Your task to perform on an android device: manage bookmarks in the chrome app Image 0: 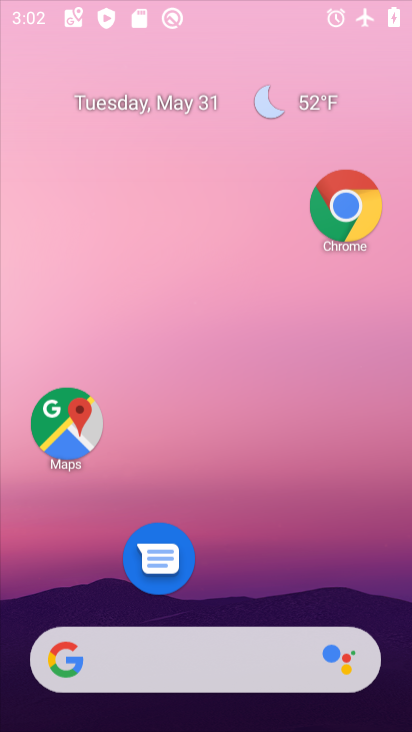
Step 0: drag from (281, 525) to (150, 100)
Your task to perform on an android device: manage bookmarks in the chrome app Image 1: 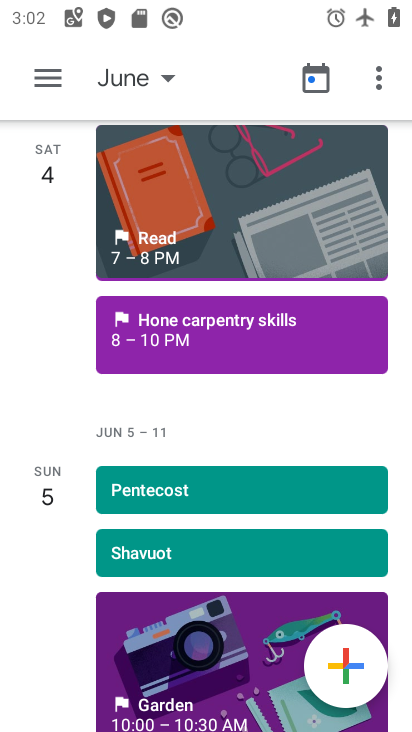
Step 1: press home button
Your task to perform on an android device: manage bookmarks in the chrome app Image 2: 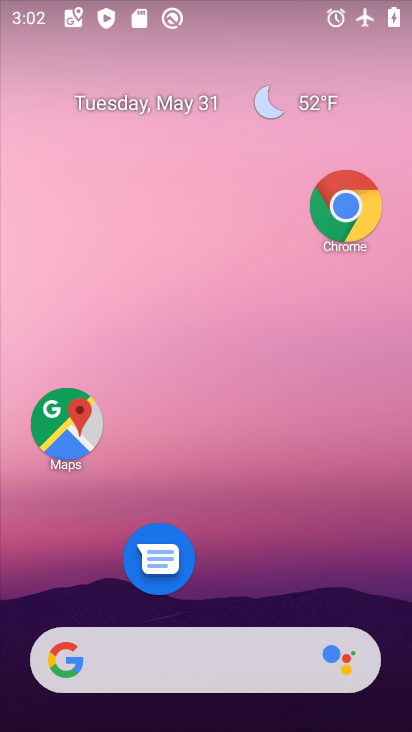
Step 2: drag from (283, 566) to (201, 85)
Your task to perform on an android device: manage bookmarks in the chrome app Image 3: 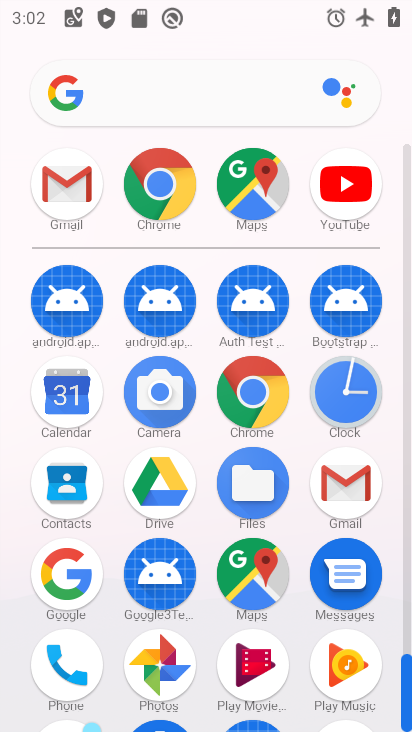
Step 3: click (260, 409)
Your task to perform on an android device: manage bookmarks in the chrome app Image 4: 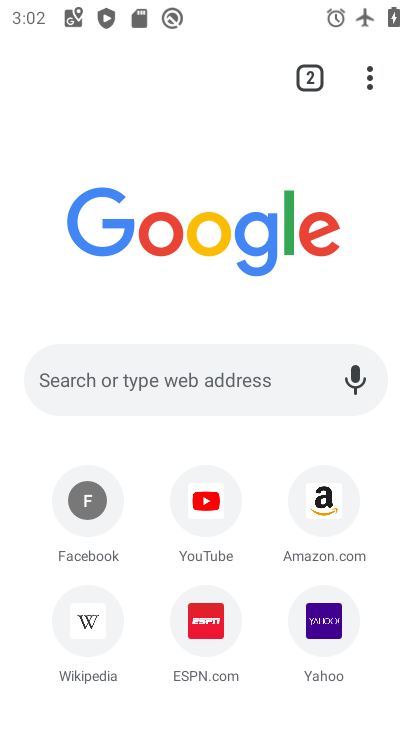
Step 4: click (364, 72)
Your task to perform on an android device: manage bookmarks in the chrome app Image 5: 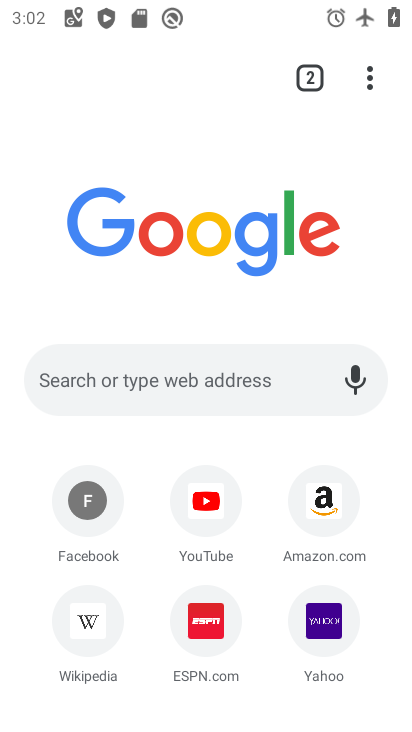
Step 5: click (365, 97)
Your task to perform on an android device: manage bookmarks in the chrome app Image 6: 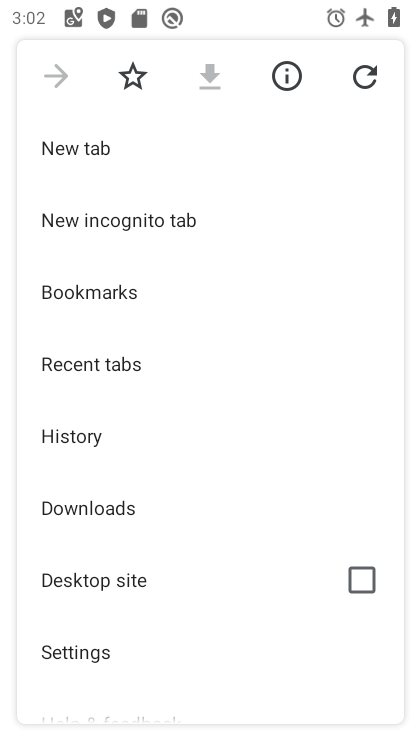
Step 6: click (134, 292)
Your task to perform on an android device: manage bookmarks in the chrome app Image 7: 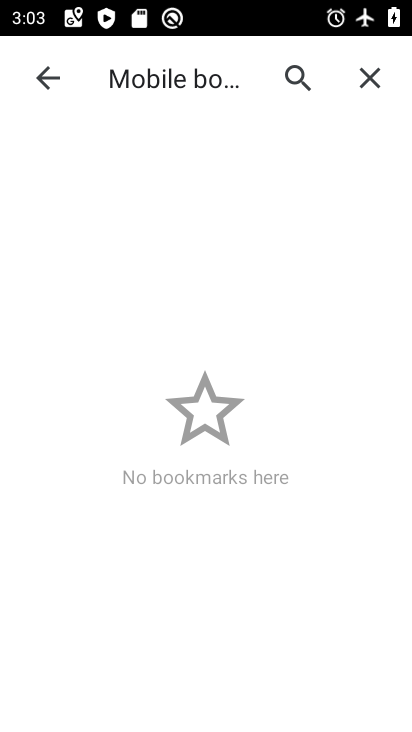
Step 7: task complete